Your task to perform on an android device: Go to settings Image 0: 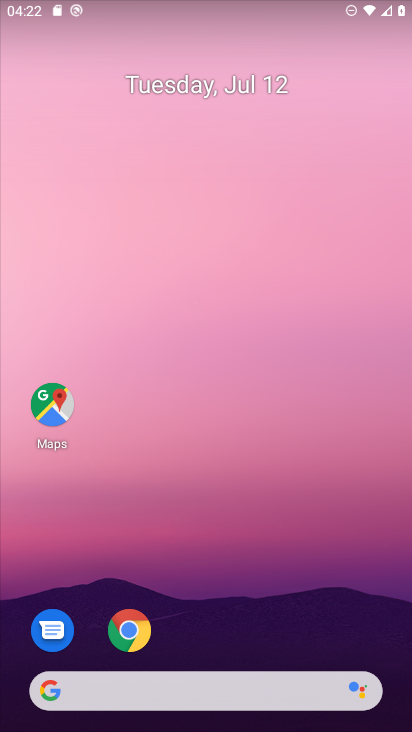
Step 0: drag from (394, 656) to (330, 167)
Your task to perform on an android device: Go to settings Image 1: 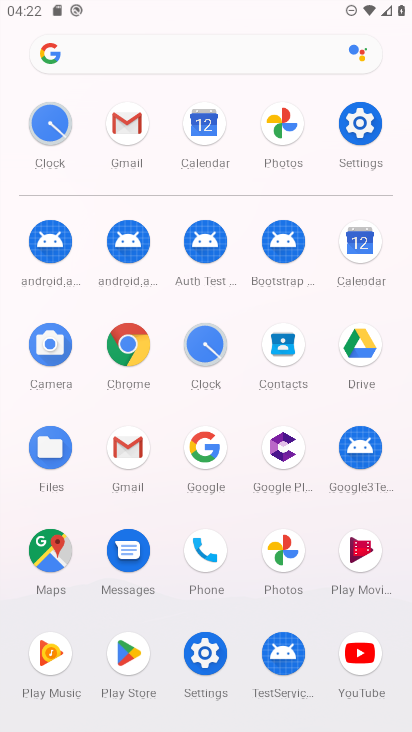
Step 1: click (205, 652)
Your task to perform on an android device: Go to settings Image 2: 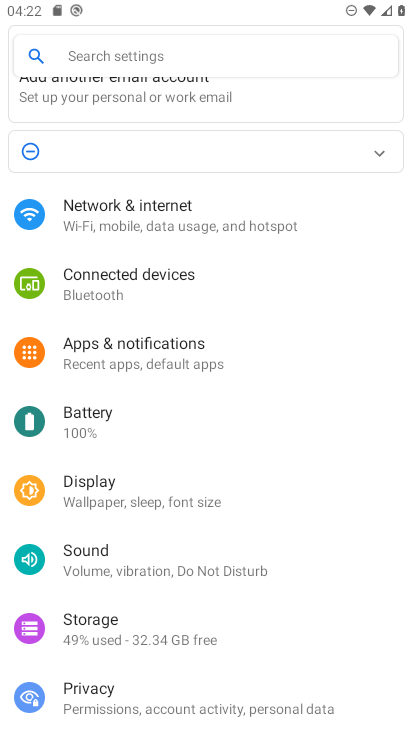
Step 2: task complete